Your task to perform on an android device: Show the shopping cart on costco.com. Search for bose quietcomfort 35 on costco.com, select the first entry, add it to the cart, then select checkout. Image 0: 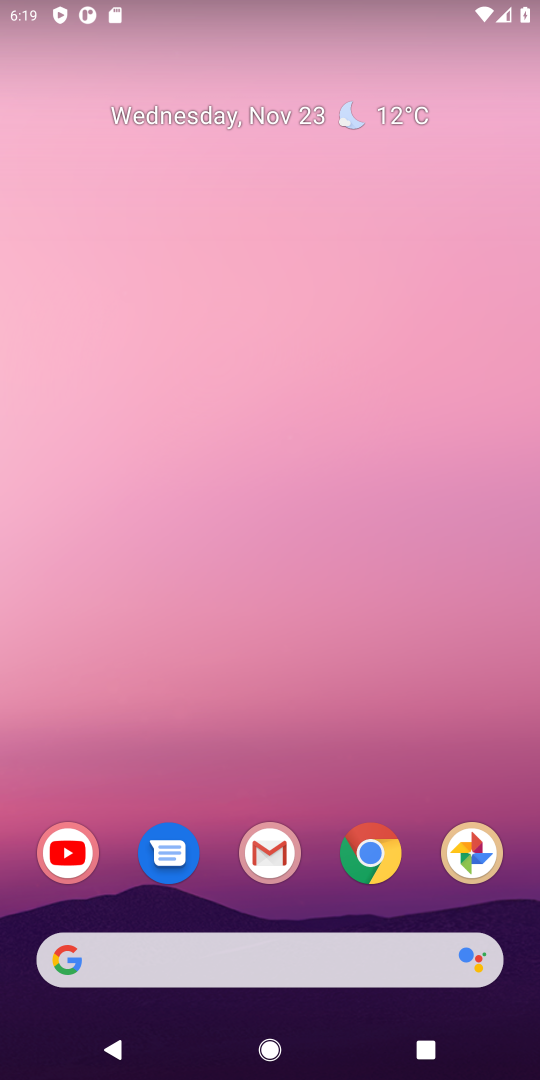
Step 0: click (375, 853)
Your task to perform on an android device: Show the shopping cart on costco.com. Search for bose quietcomfort 35 on costco.com, select the first entry, add it to the cart, then select checkout. Image 1: 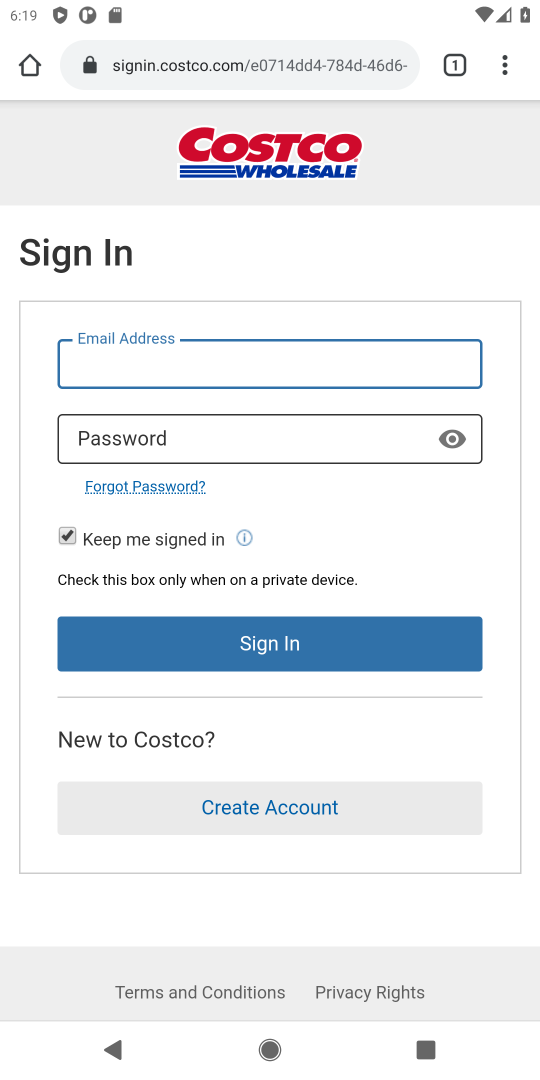
Step 1: press back button
Your task to perform on an android device: Show the shopping cart on costco.com. Search for bose quietcomfort 35 on costco.com, select the first entry, add it to the cart, then select checkout. Image 2: 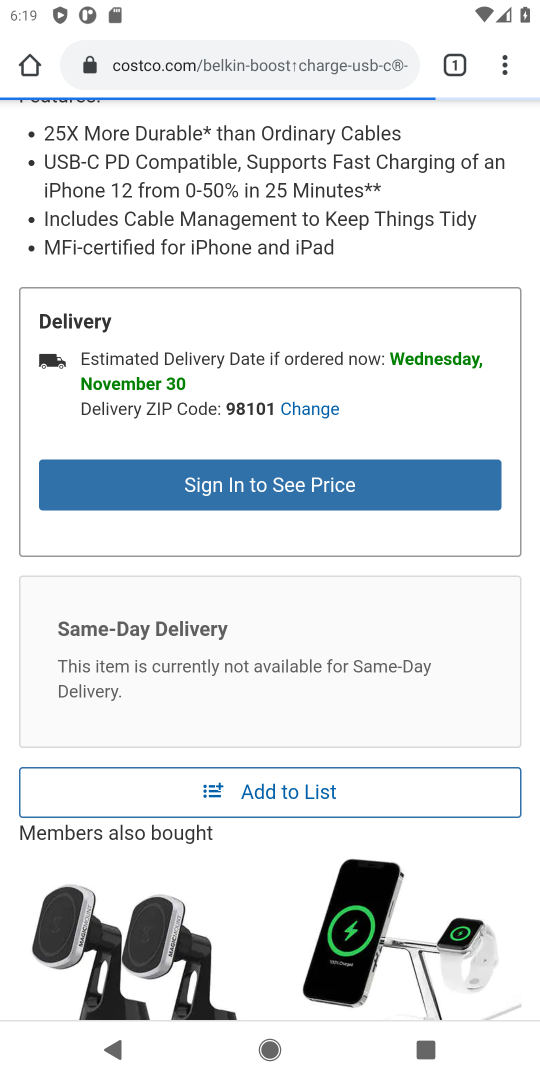
Step 2: drag from (420, 230) to (392, 897)
Your task to perform on an android device: Show the shopping cart on costco.com. Search for bose quietcomfort 35 on costco.com, select the first entry, add it to the cart, then select checkout. Image 3: 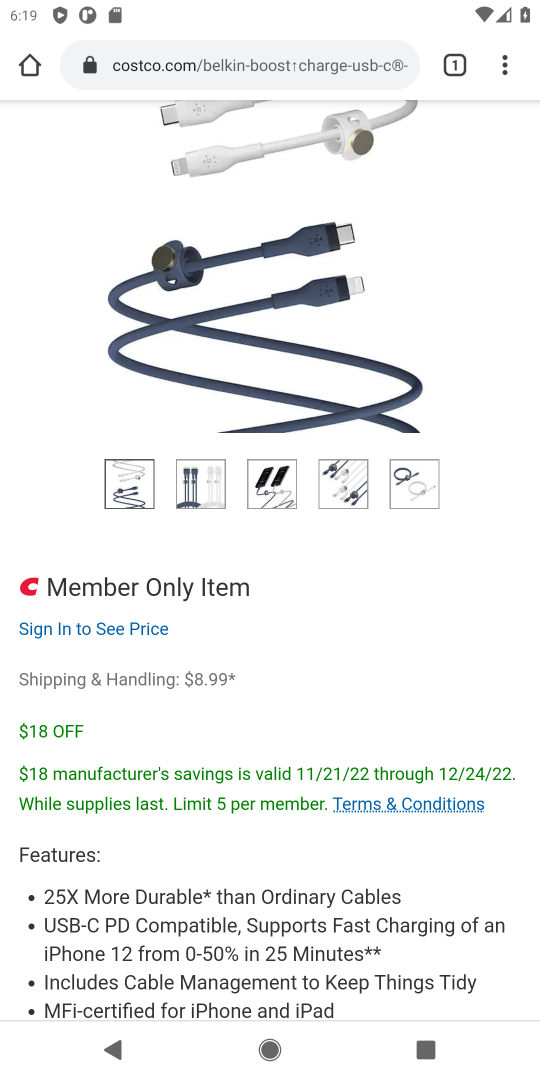
Step 3: drag from (428, 326) to (410, 912)
Your task to perform on an android device: Show the shopping cart on costco.com. Search for bose quietcomfort 35 on costco.com, select the first entry, add it to the cart, then select checkout. Image 4: 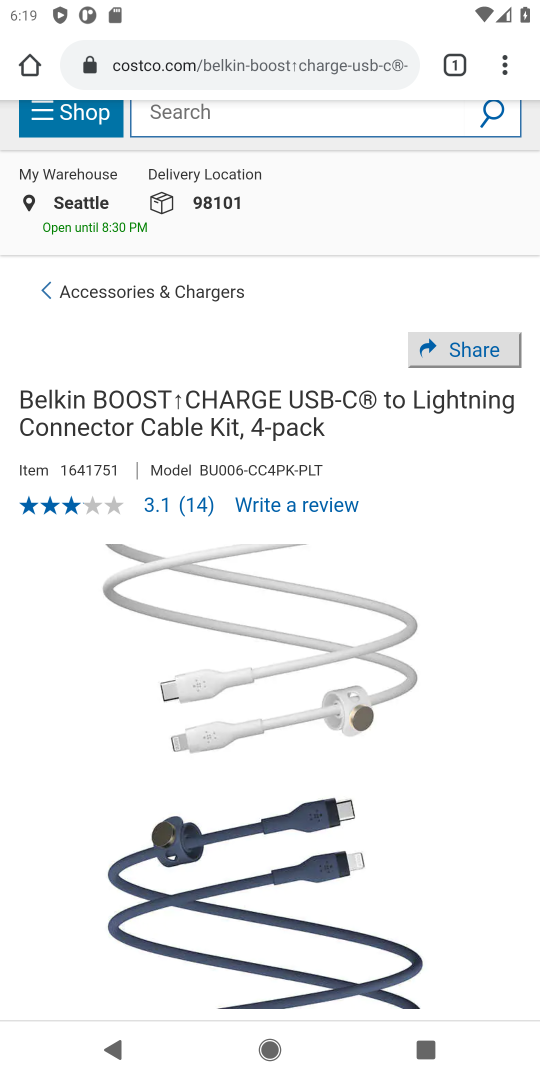
Step 4: drag from (301, 296) to (299, 775)
Your task to perform on an android device: Show the shopping cart on costco.com. Search for bose quietcomfort 35 on costco.com, select the first entry, add it to the cart, then select checkout. Image 5: 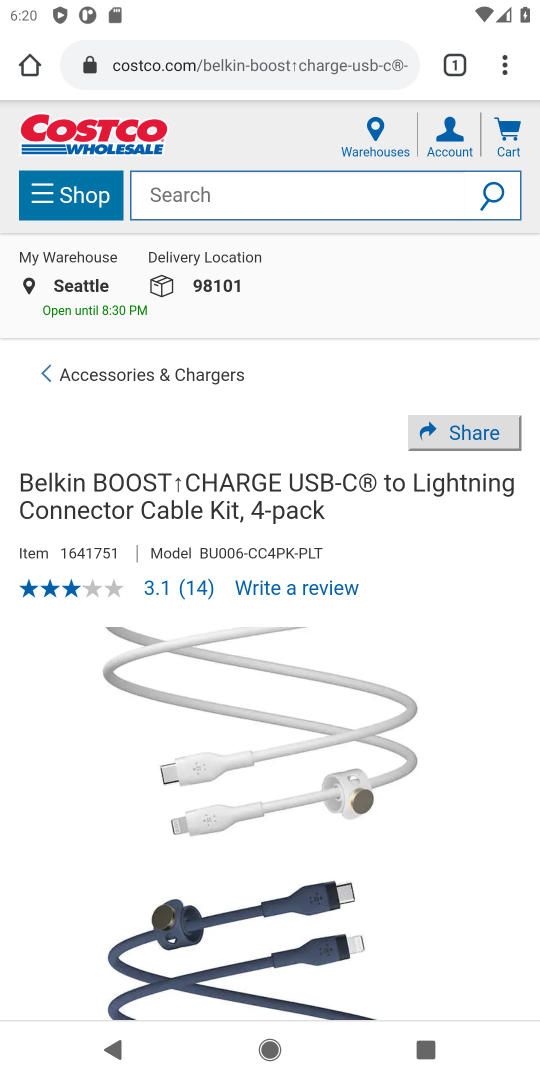
Step 5: click (510, 135)
Your task to perform on an android device: Show the shopping cart on costco.com. Search for bose quietcomfort 35 on costco.com, select the first entry, add it to the cart, then select checkout. Image 6: 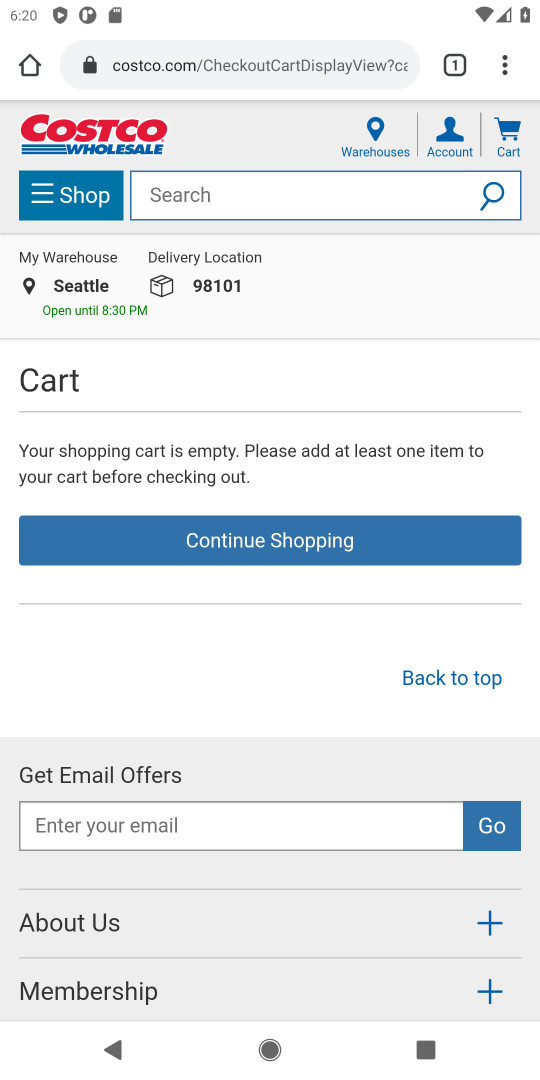
Step 6: click (163, 204)
Your task to perform on an android device: Show the shopping cart on costco.com. Search for bose quietcomfort 35 on costco.com, select the first entry, add it to the cart, then select checkout. Image 7: 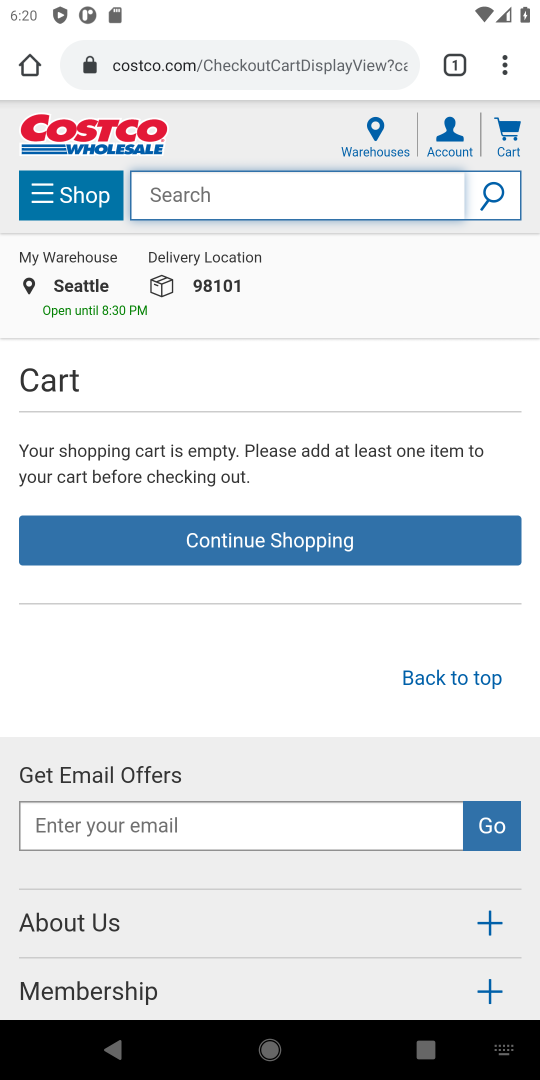
Step 7: type "bose quietcomfort 35 "
Your task to perform on an android device: Show the shopping cart on costco.com. Search for bose quietcomfort 35 on costco.com, select the first entry, add it to the cart, then select checkout. Image 8: 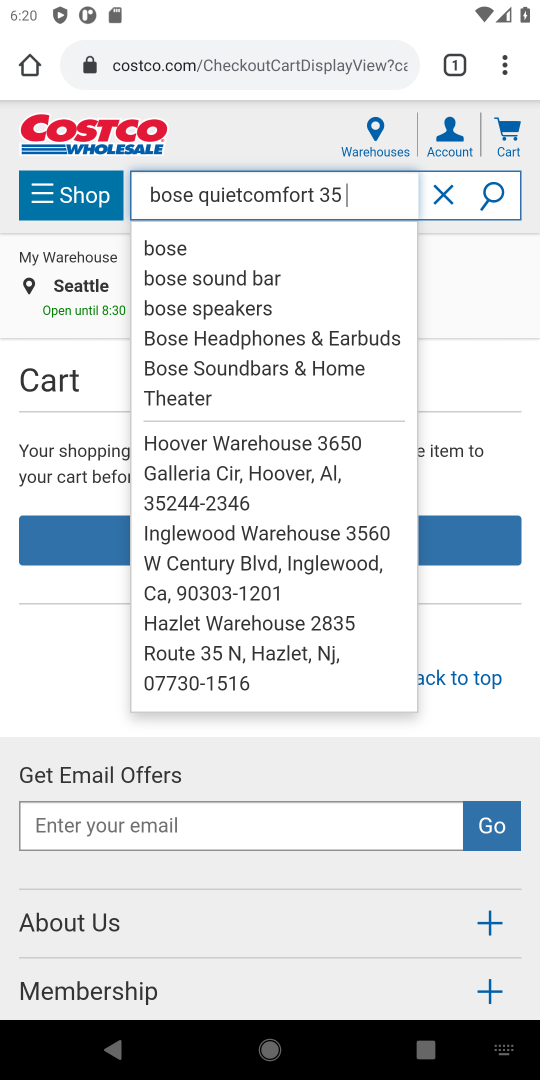
Step 8: click (482, 208)
Your task to perform on an android device: Show the shopping cart on costco.com. Search for bose quietcomfort 35 on costco.com, select the first entry, add it to the cart, then select checkout. Image 9: 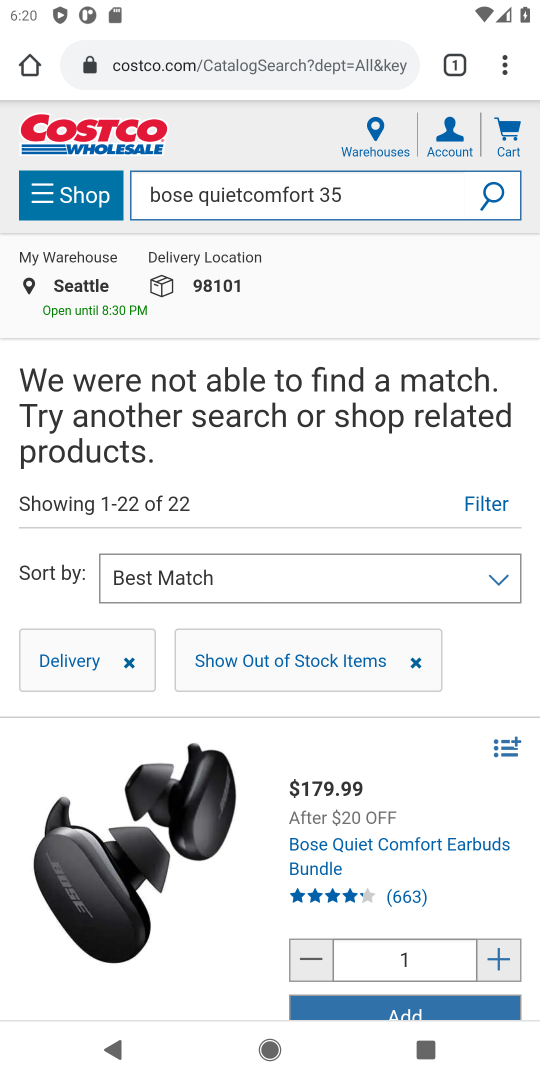
Step 9: task complete